Your task to perform on an android device: turn off notifications in google photos Image 0: 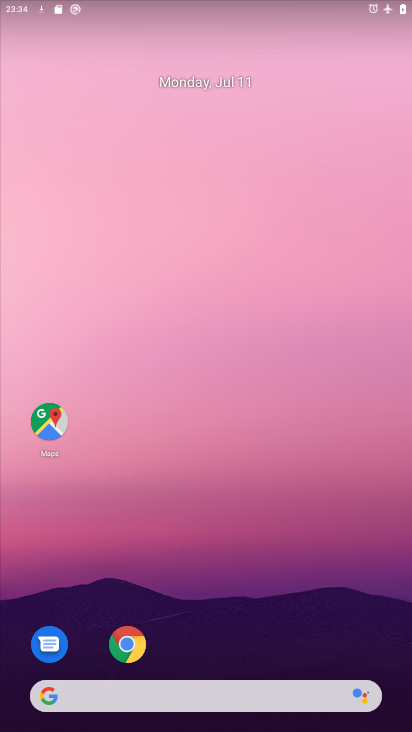
Step 0: drag from (252, 613) to (248, 173)
Your task to perform on an android device: turn off notifications in google photos Image 1: 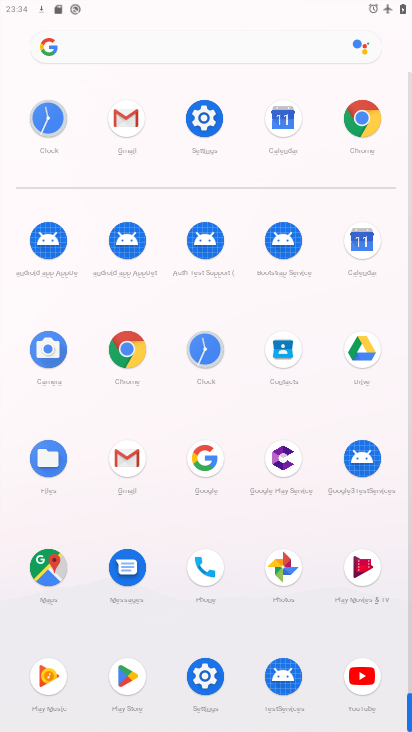
Step 1: click (274, 554)
Your task to perform on an android device: turn off notifications in google photos Image 2: 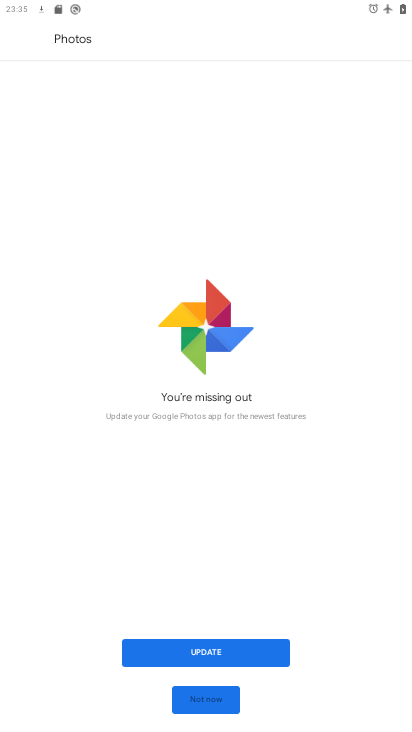
Step 2: click (196, 702)
Your task to perform on an android device: turn off notifications in google photos Image 3: 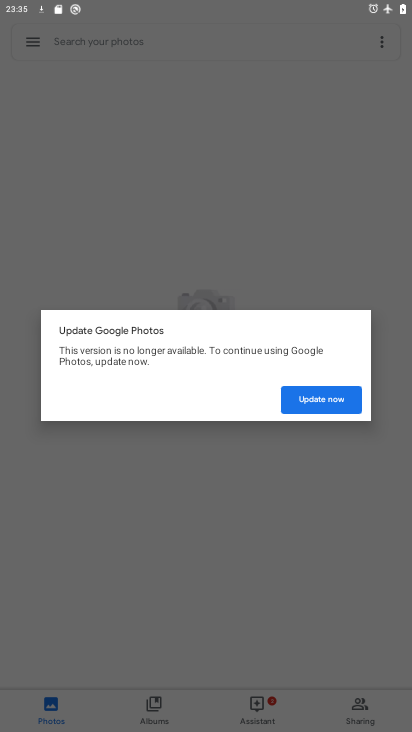
Step 3: click (307, 392)
Your task to perform on an android device: turn off notifications in google photos Image 4: 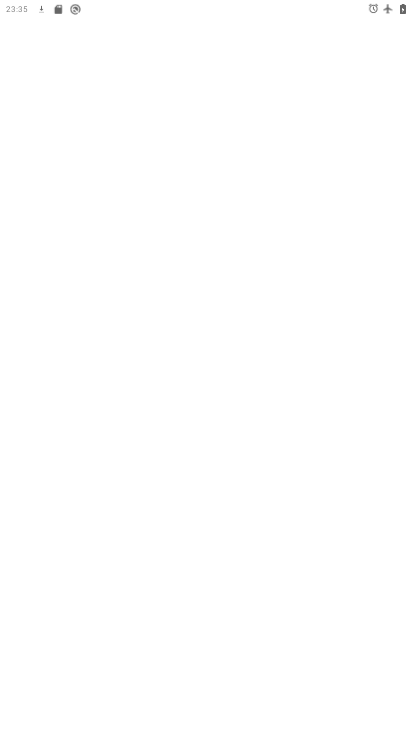
Step 4: press back button
Your task to perform on an android device: turn off notifications in google photos Image 5: 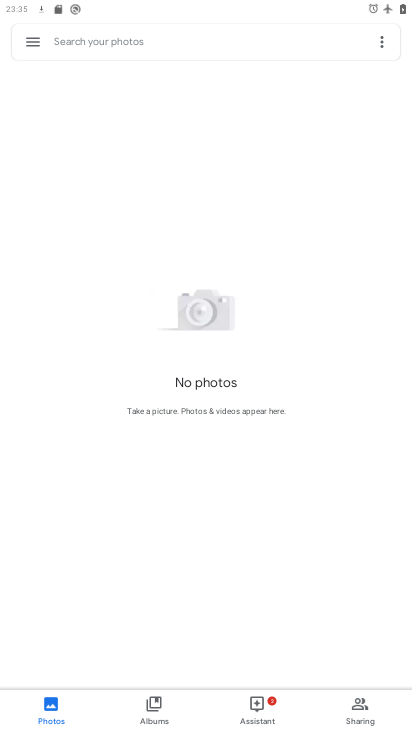
Step 5: click (23, 45)
Your task to perform on an android device: turn off notifications in google photos Image 6: 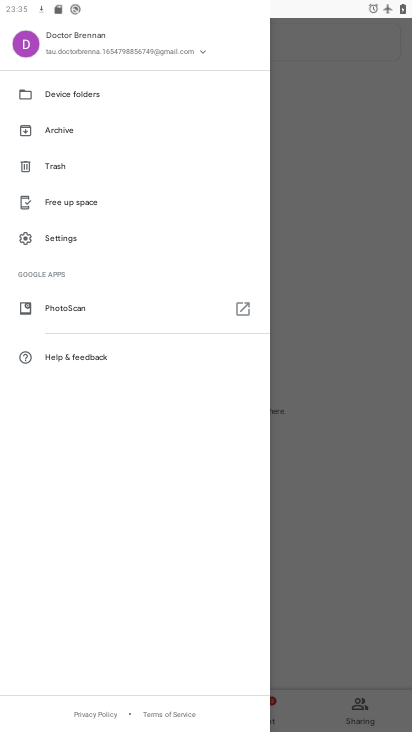
Step 6: click (47, 236)
Your task to perform on an android device: turn off notifications in google photos Image 7: 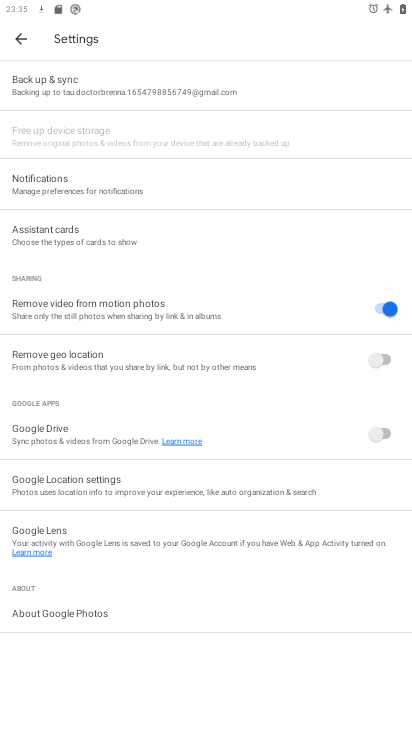
Step 7: click (84, 175)
Your task to perform on an android device: turn off notifications in google photos Image 8: 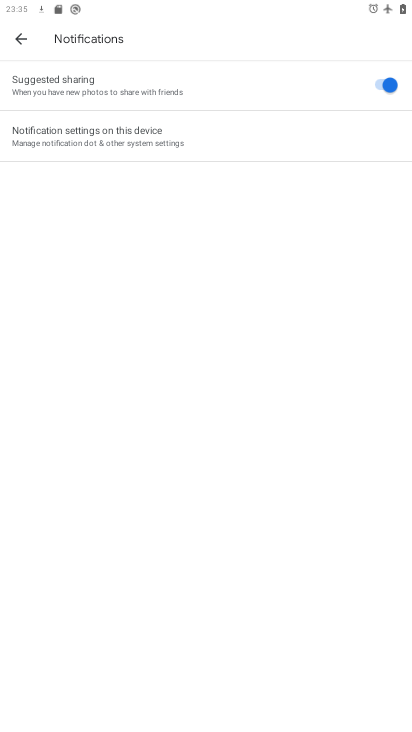
Step 8: click (150, 143)
Your task to perform on an android device: turn off notifications in google photos Image 9: 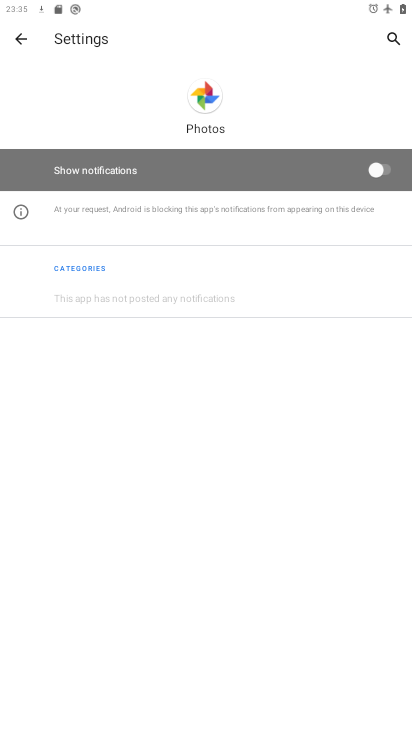
Step 9: task complete